Your task to perform on an android device: check data usage Image 0: 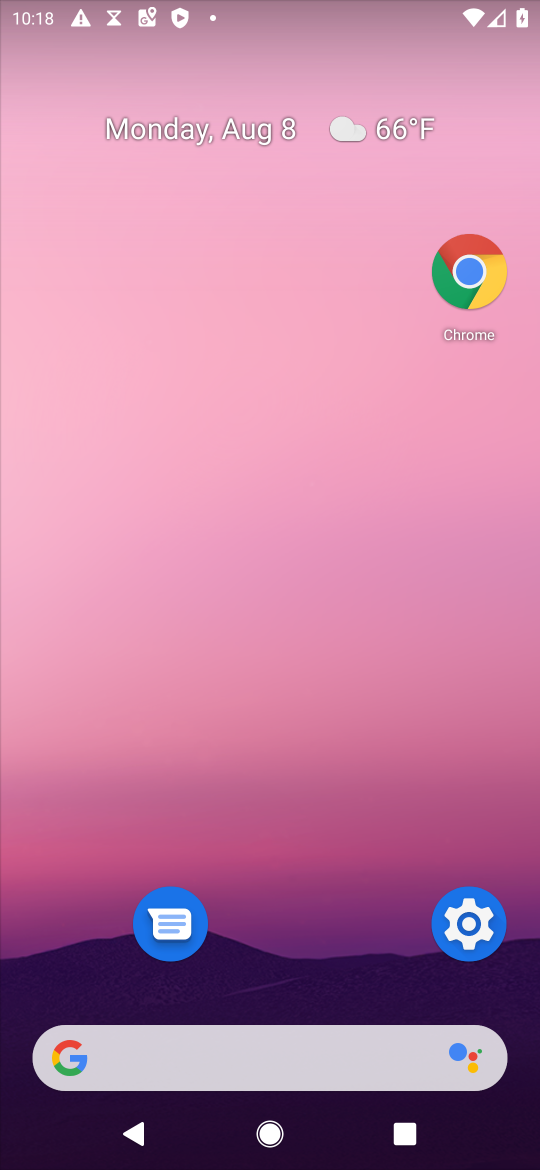
Step 0: press home button
Your task to perform on an android device: check data usage Image 1: 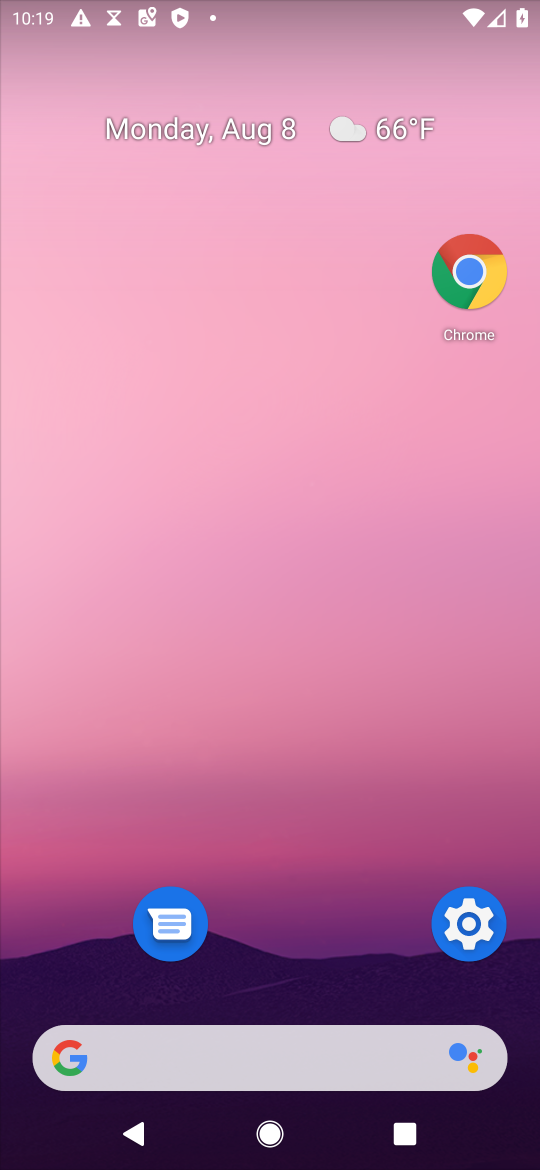
Step 1: drag from (309, 680) to (192, 202)
Your task to perform on an android device: check data usage Image 2: 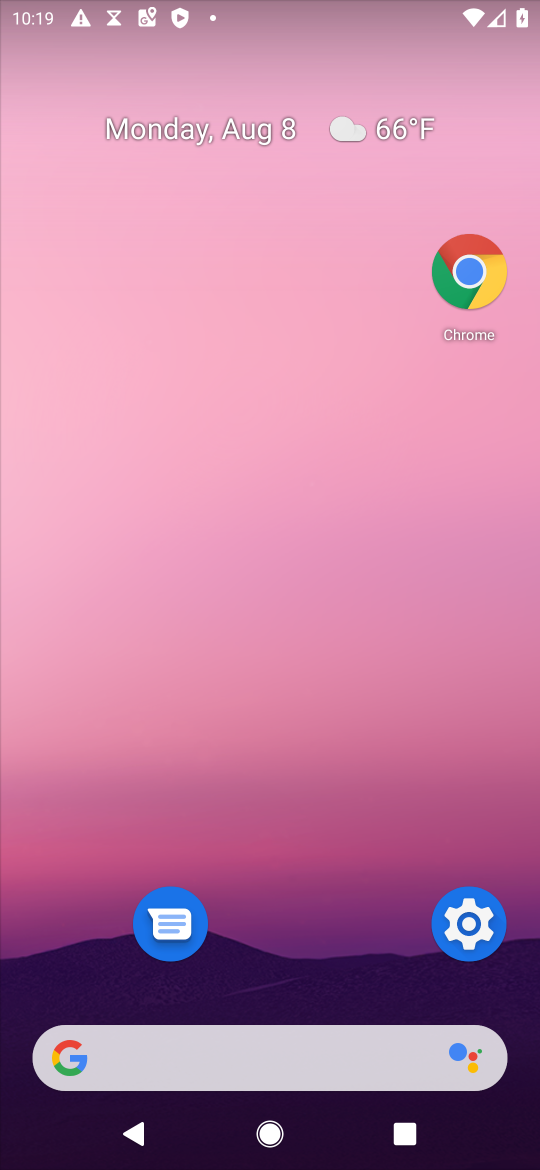
Step 2: drag from (478, 15) to (452, 1114)
Your task to perform on an android device: check data usage Image 3: 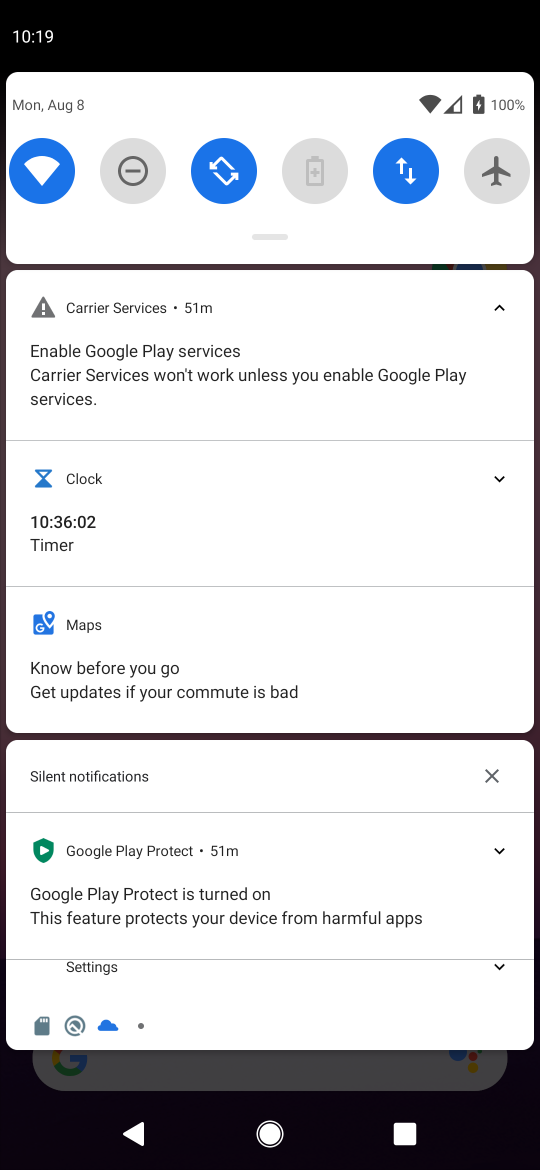
Step 3: click (392, 168)
Your task to perform on an android device: check data usage Image 4: 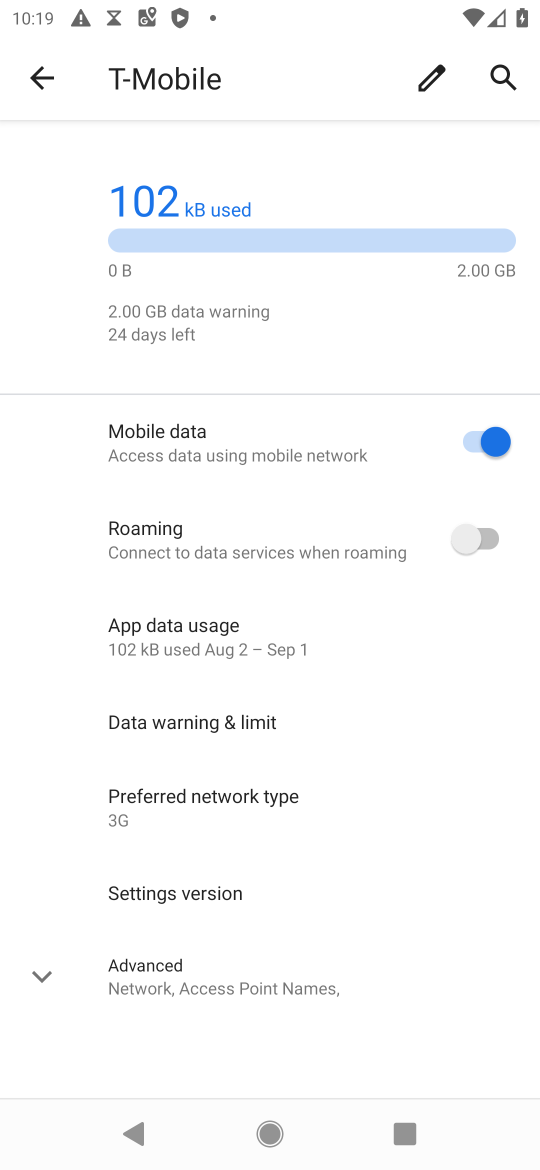
Step 4: task complete